Your task to perform on an android device: Go to privacy settings Image 0: 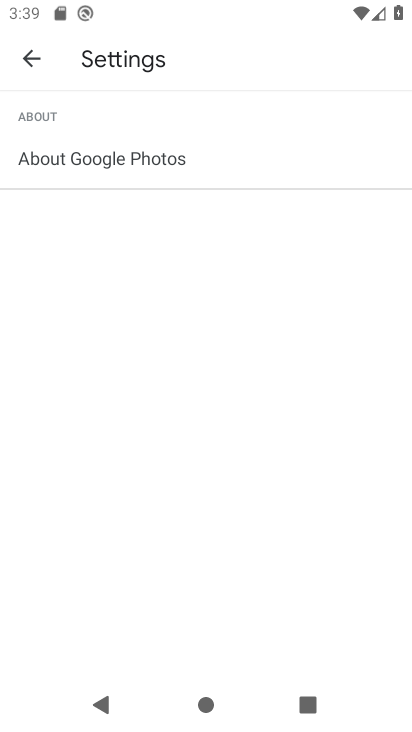
Step 0: drag from (149, 564) to (264, 103)
Your task to perform on an android device: Go to privacy settings Image 1: 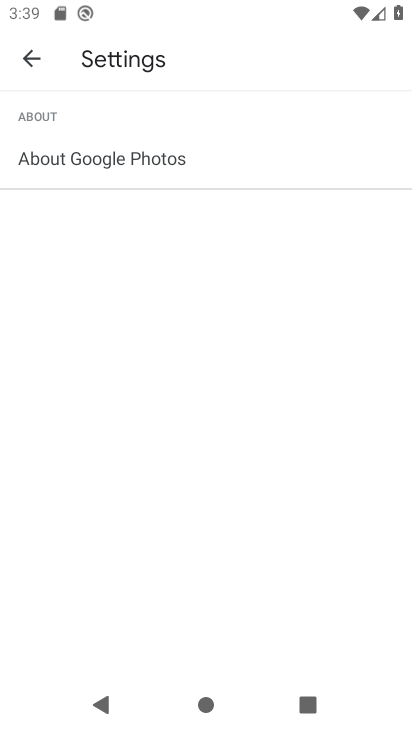
Step 1: press home button
Your task to perform on an android device: Go to privacy settings Image 2: 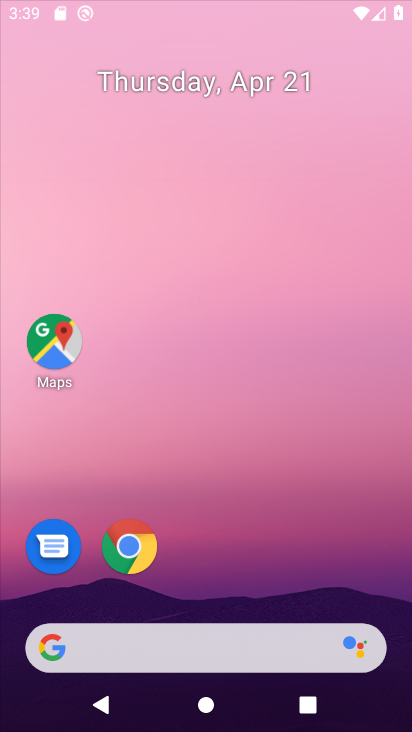
Step 2: drag from (188, 574) to (296, 77)
Your task to perform on an android device: Go to privacy settings Image 3: 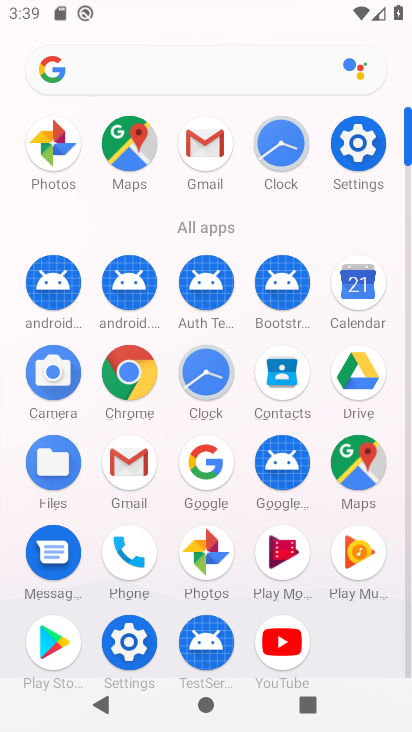
Step 3: click (358, 135)
Your task to perform on an android device: Go to privacy settings Image 4: 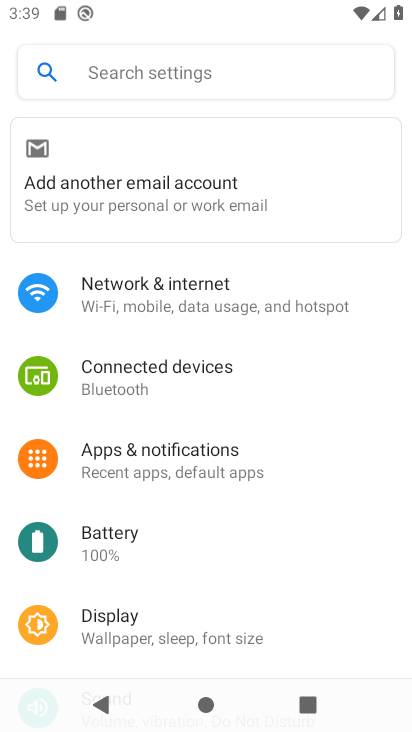
Step 4: drag from (138, 540) to (251, 89)
Your task to perform on an android device: Go to privacy settings Image 5: 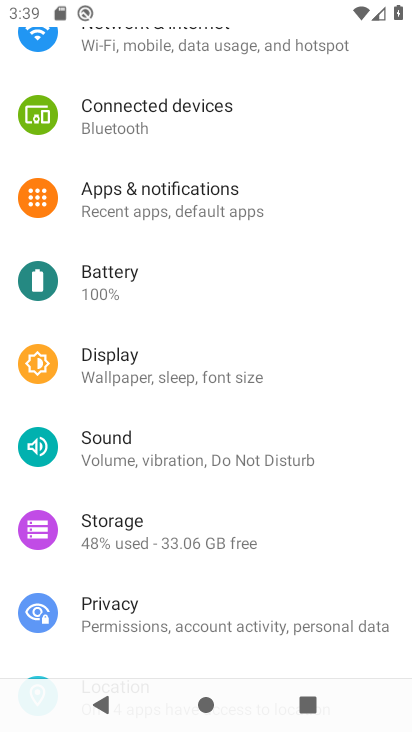
Step 5: drag from (181, 532) to (265, 162)
Your task to perform on an android device: Go to privacy settings Image 6: 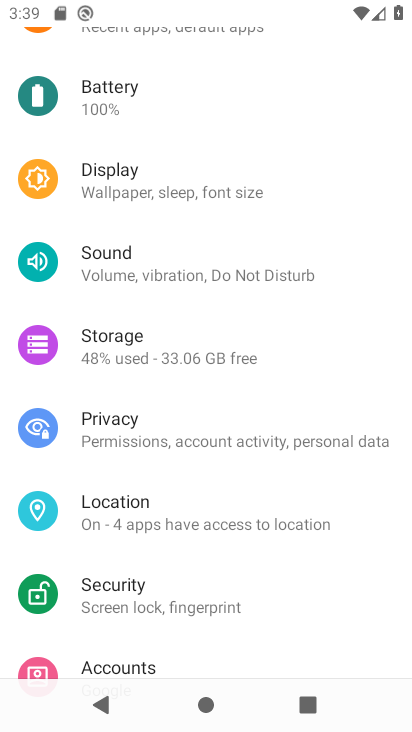
Step 6: click (113, 419)
Your task to perform on an android device: Go to privacy settings Image 7: 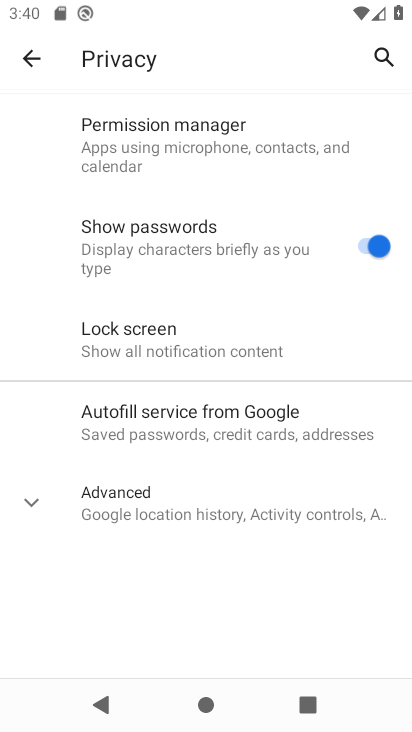
Step 7: task complete